Your task to perform on an android device: turn on the 24-hour format for clock Image 0: 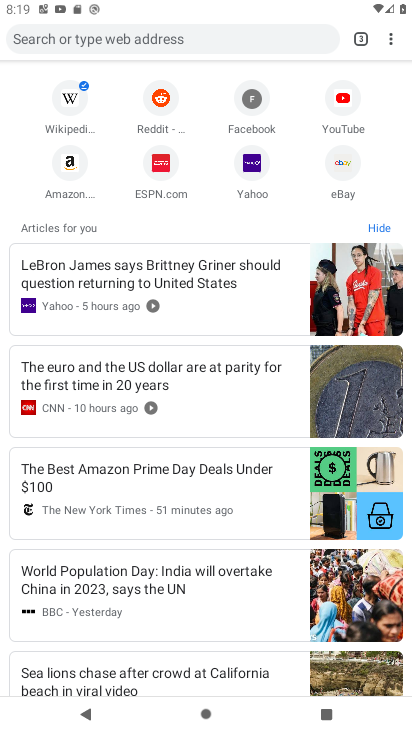
Step 0: press home button
Your task to perform on an android device: turn on the 24-hour format for clock Image 1: 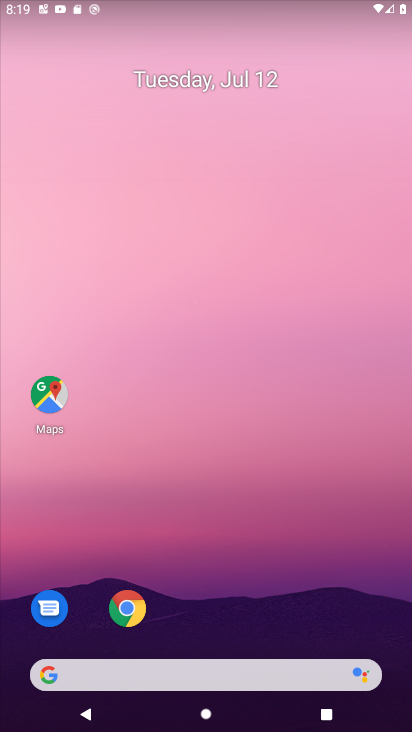
Step 1: drag from (217, 680) to (305, 171)
Your task to perform on an android device: turn on the 24-hour format for clock Image 2: 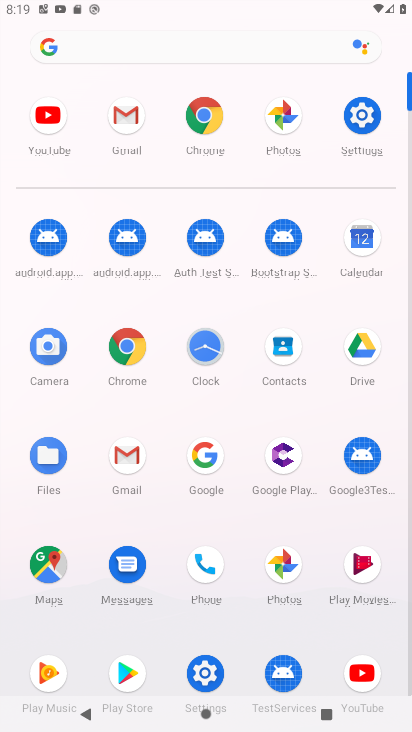
Step 2: click (203, 352)
Your task to perform on an android device: turn on the 24-hour format for clock Image 3: 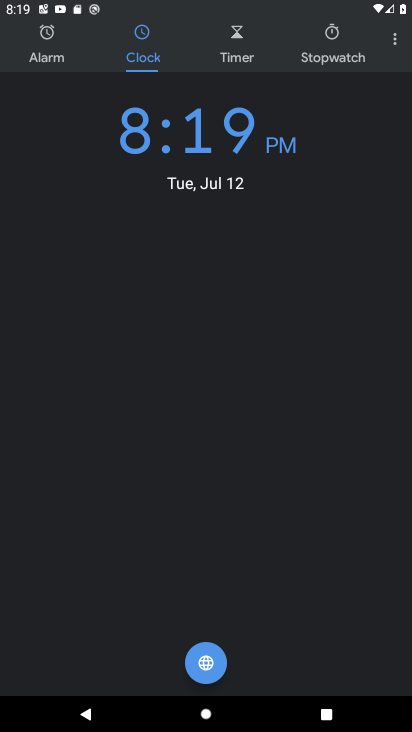
Step 3: click (395, 42)
Your task to perform on an android device: turn on the 24-hour format for clock Image 4: 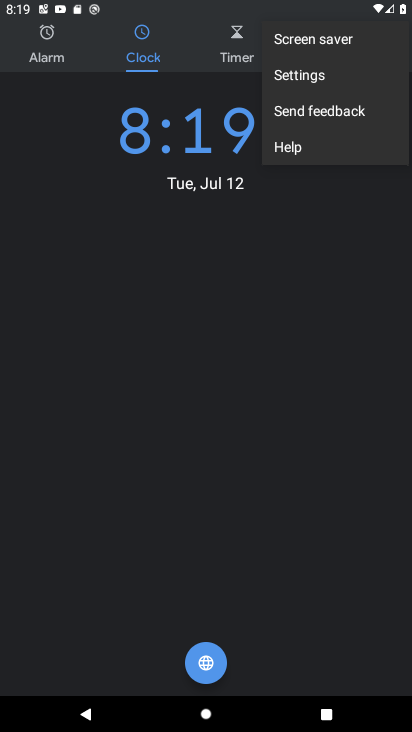
Step 4: click (324, 74)
Your task to perform on an android device: turn on the 24-hour format for clock Image 5: 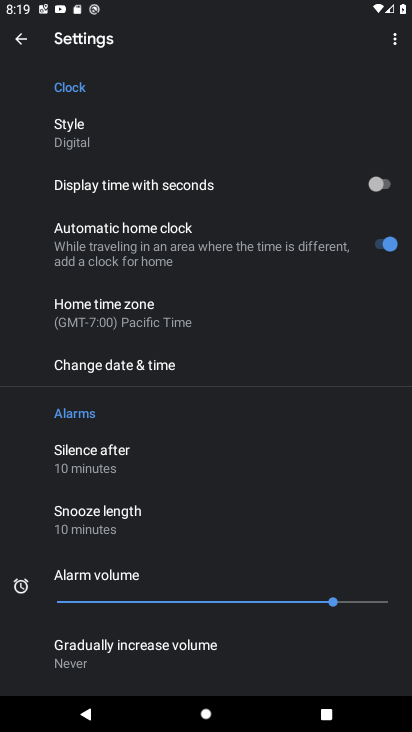
Step 5: click (162, 364)
Your task to perform on an android device: turn on the 24-hour format for clock Image 6: 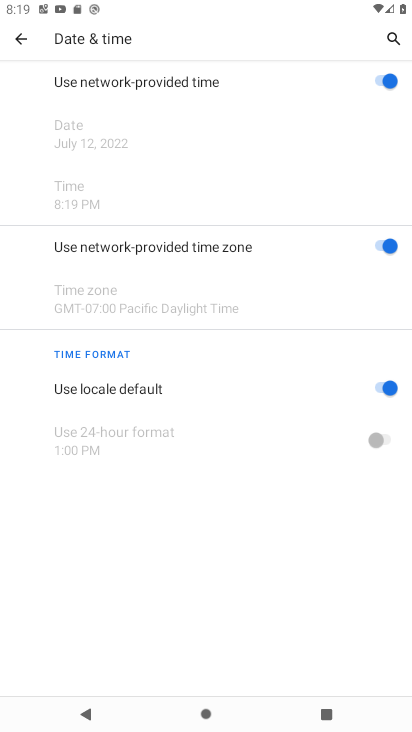
Step 6: click (379, 393)
Your task to perform on an android device: turn on the 24-hour format for clock Image 7: 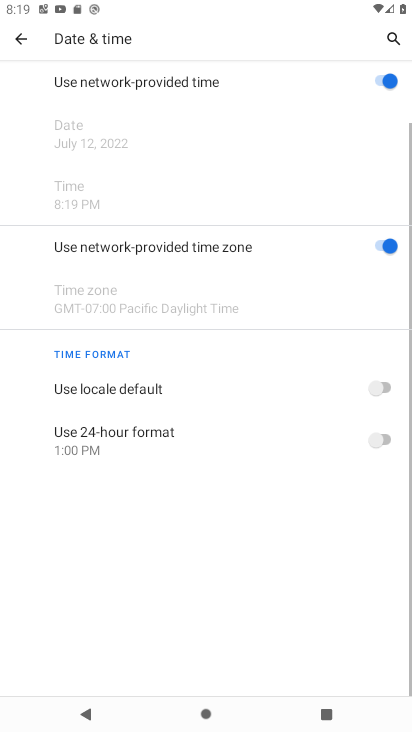
Step 7: click (398, 439)
Your task to perform on an android device: turn on the 24-hour format for clock Image 8: 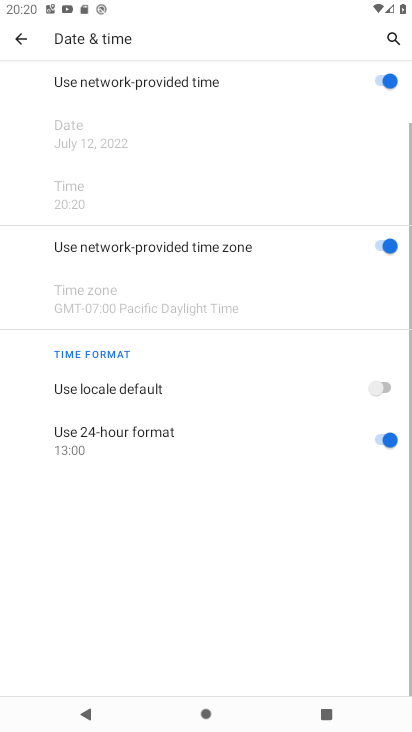
Step 8: task complete